Your task to perform on an android device: add a contact Image 0: 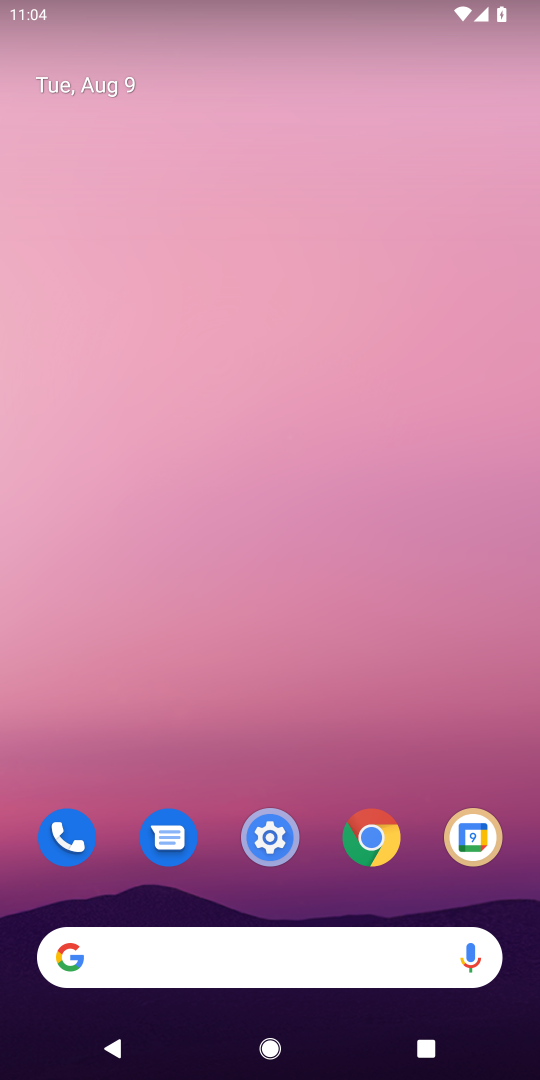
Step 0: drag from (308, 894) to (312, 159)
Your task to perform on an android device: add a contact Image 1: 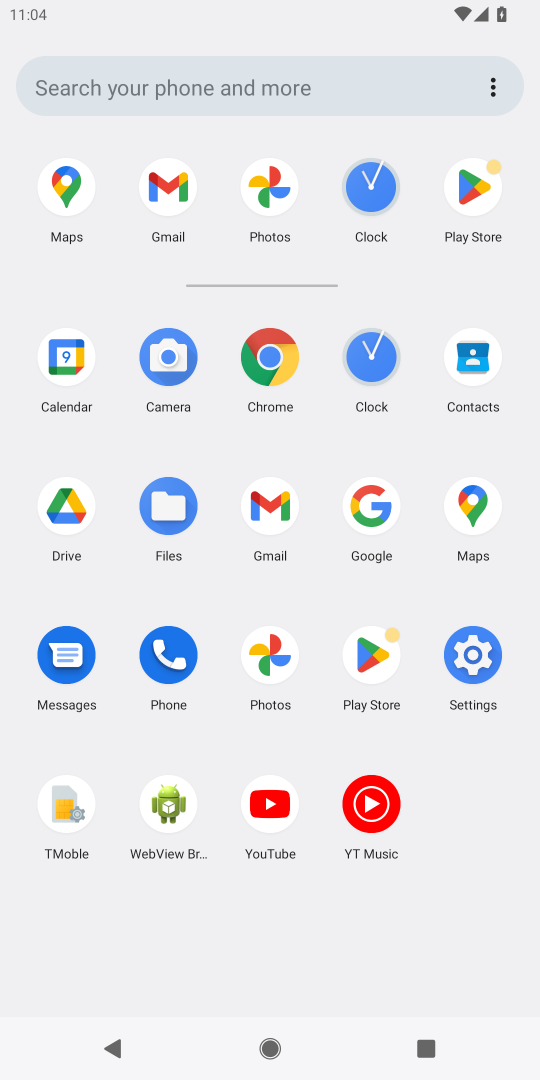
Step 1: click (478, 347)
Your task to perform on an android device: add a contact Image 2: 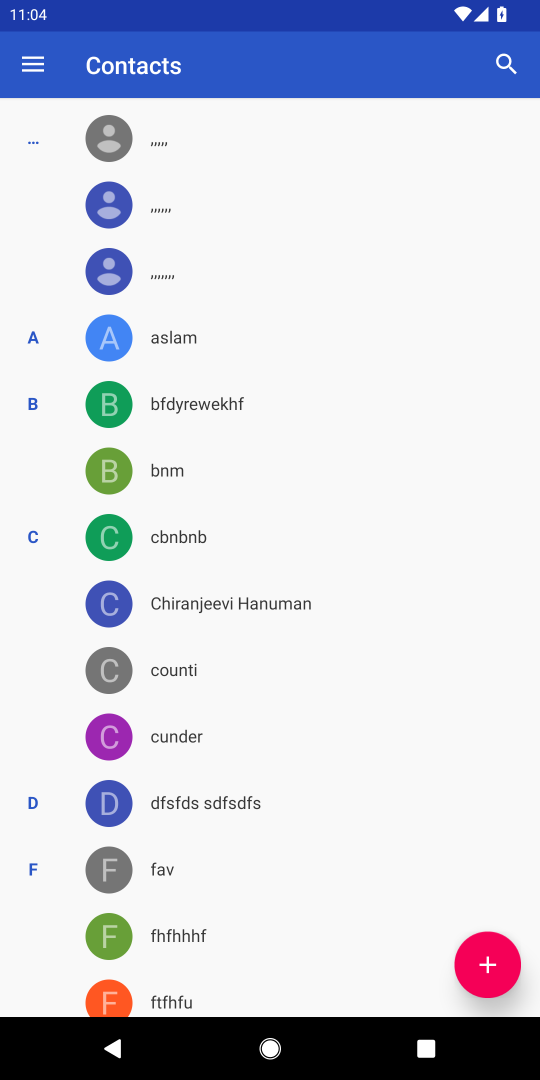
Step 2: click (495, 970)
Your task to perform on an android device: add a contact Image 3: 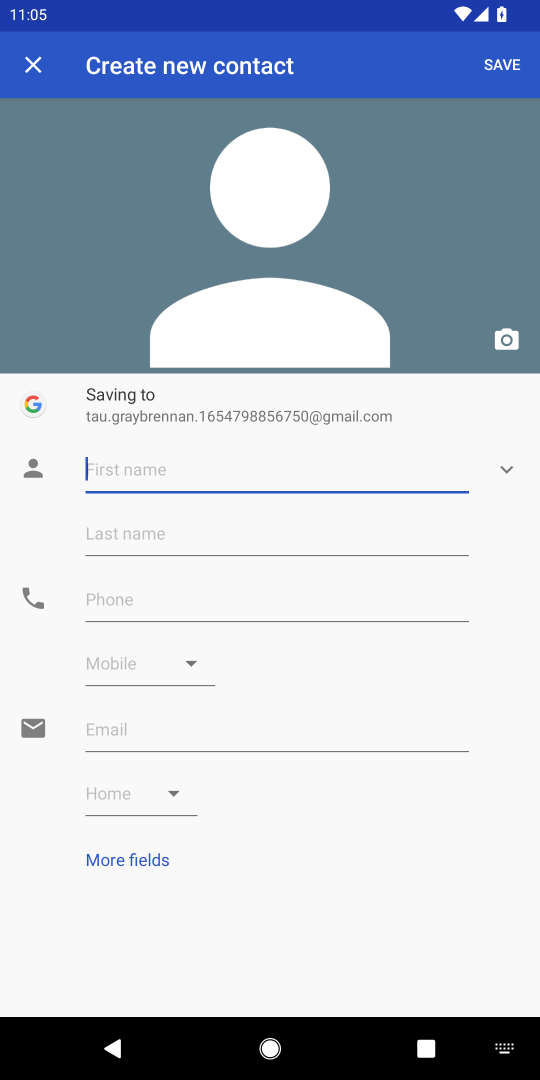
Step 3: type "iiu"
Your task to perform on an android device: add a contact Image 4: 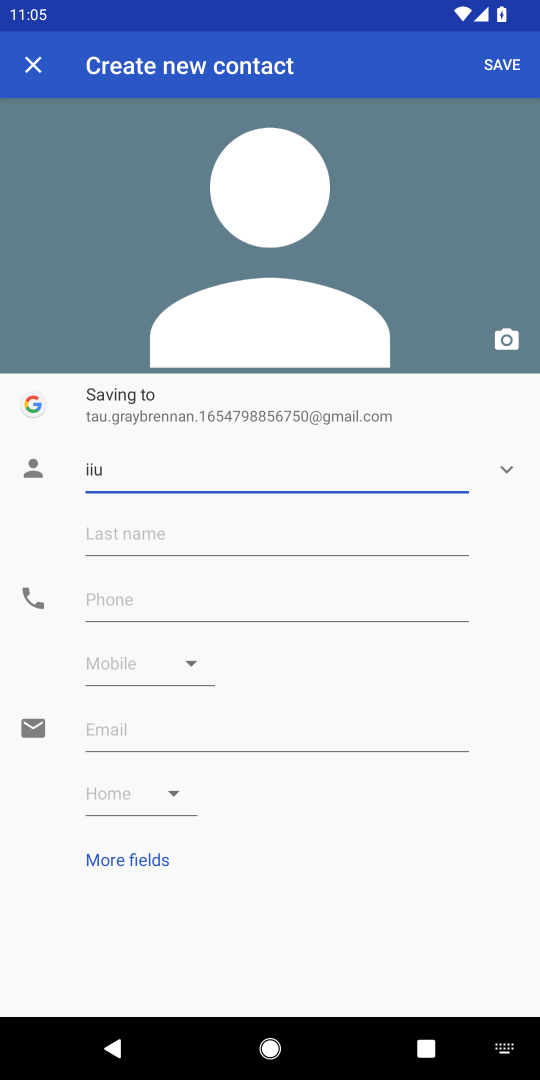
Step 4: click (202, 629)
Your task to perform on an android device: add a contact Image 5: 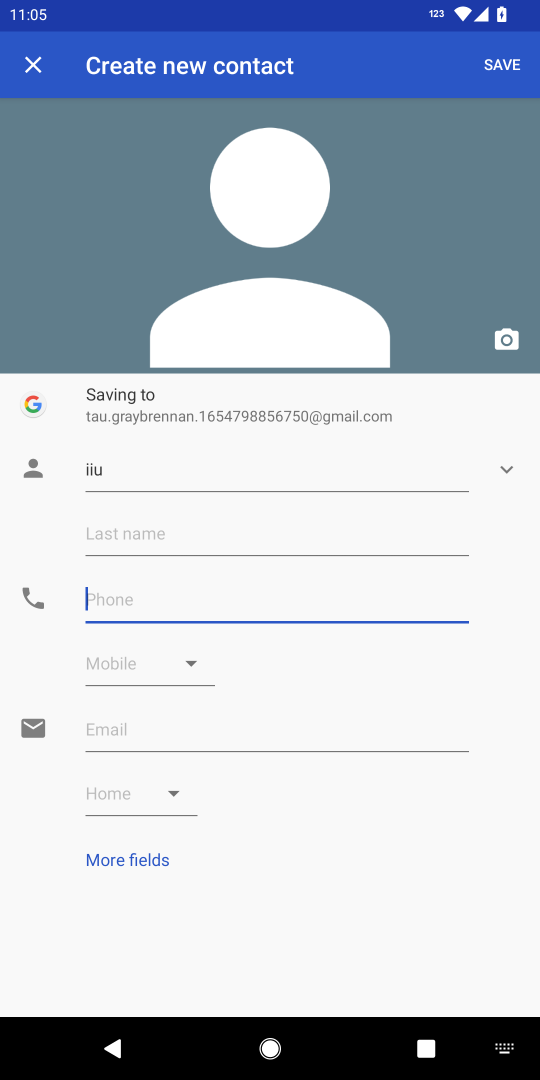
Step 5: type "78798989"
Your task to perform on an android device: add a contact Image 6: 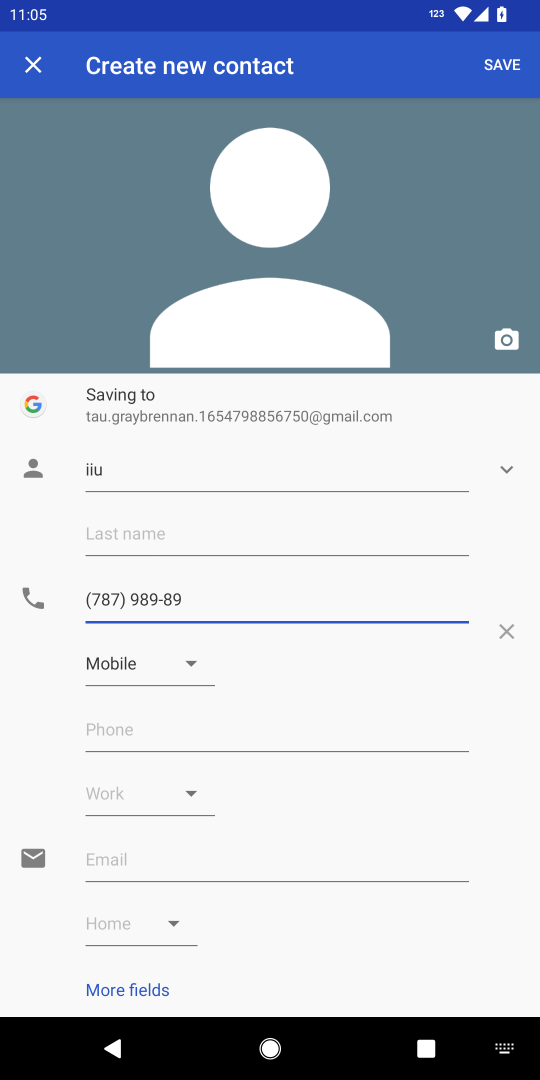
Step 6: click (504, 69)
Your task to perform on an android device: add a contact Image 7: 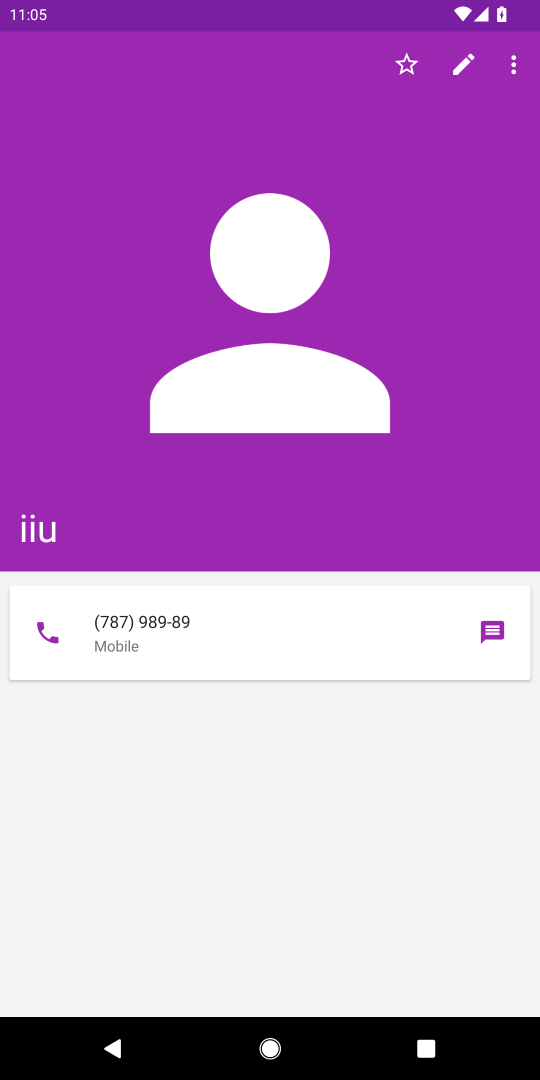
Step 7: task complete